Your task to perform on an android device: delete the emails in spam in the gmail app Image 0: 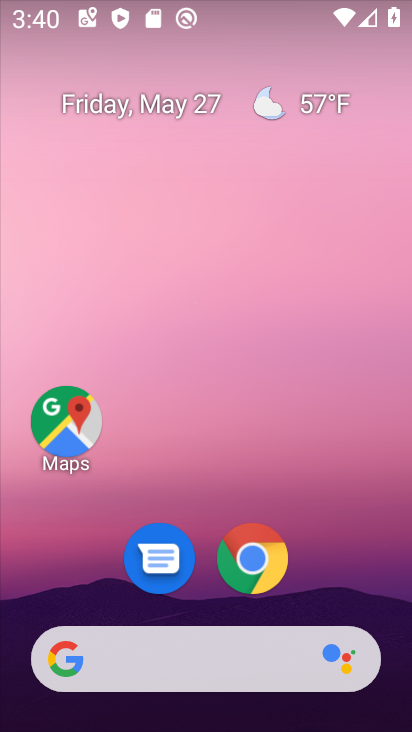
Step 0: drag from (345, 591) to (336, 178)
Your task to perform on an android device: delete the emails in spam in the gmail app Image 1: 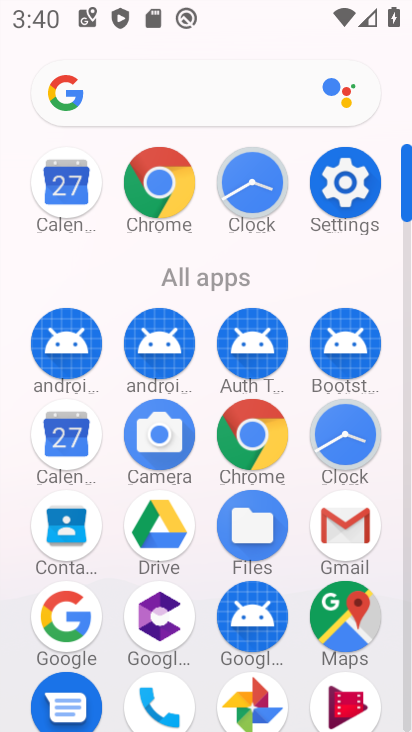
Step 1: click (362, 531)
Your task to perform on an android device: delete the emails in spam in the gmail app Image 2: 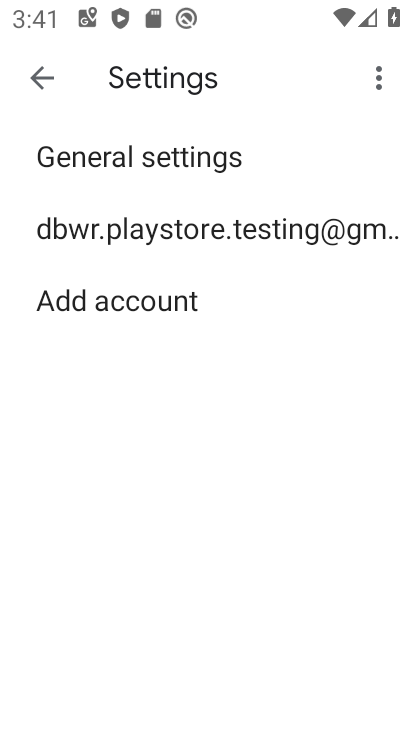
Step 2: press home button
Your task to perform on an android device: delete the emails in spam in the gmail app Image 3: 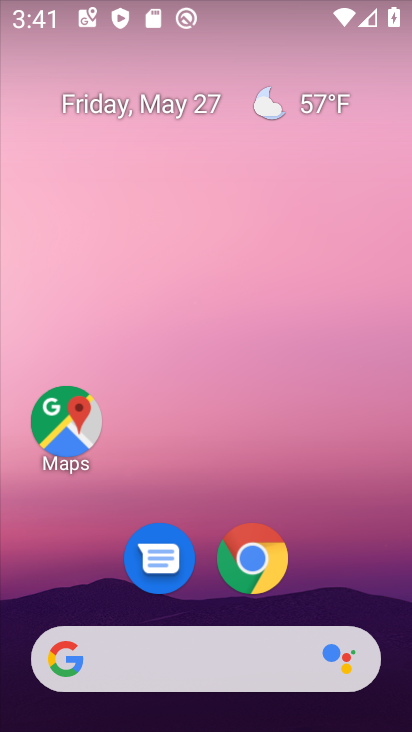
Step 3: drag from (382, 576) to (215, 94)
Your task to perform on an android device: delete the emails in spam in the gmail app Image 4: 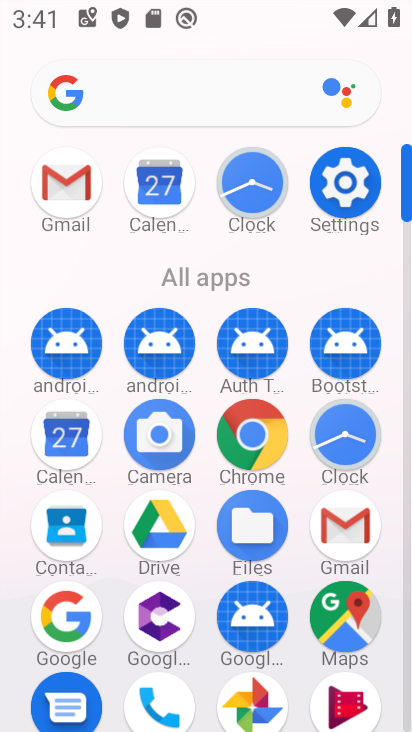
Step 4: click (78, 188)
Your task to perform on an android device: delete the emails in spam in the gmail app Image 5: 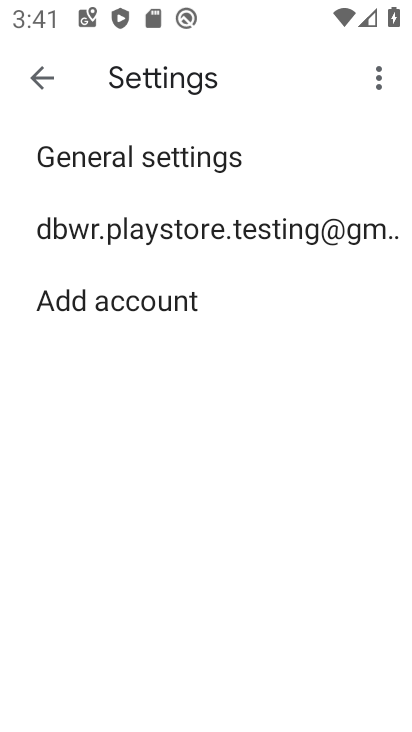
Step 5: click (242, 139)
Your task to perform on an android device: delete the emails in spam in the gmail app Image 6: 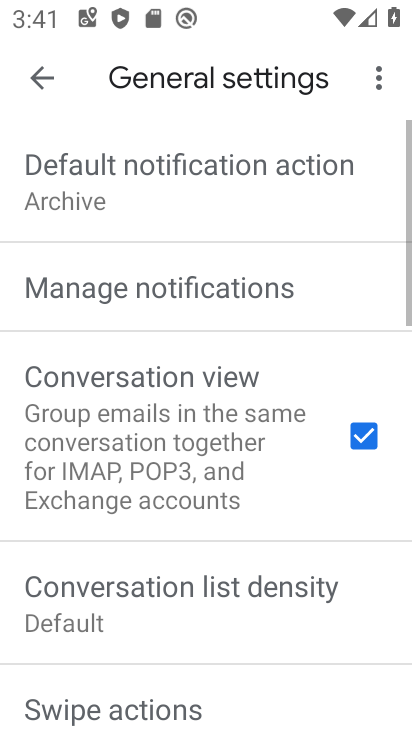
Step 6: task complete